Your task to perform on an android device: Show me productivity apps on the Play Store Image 0: 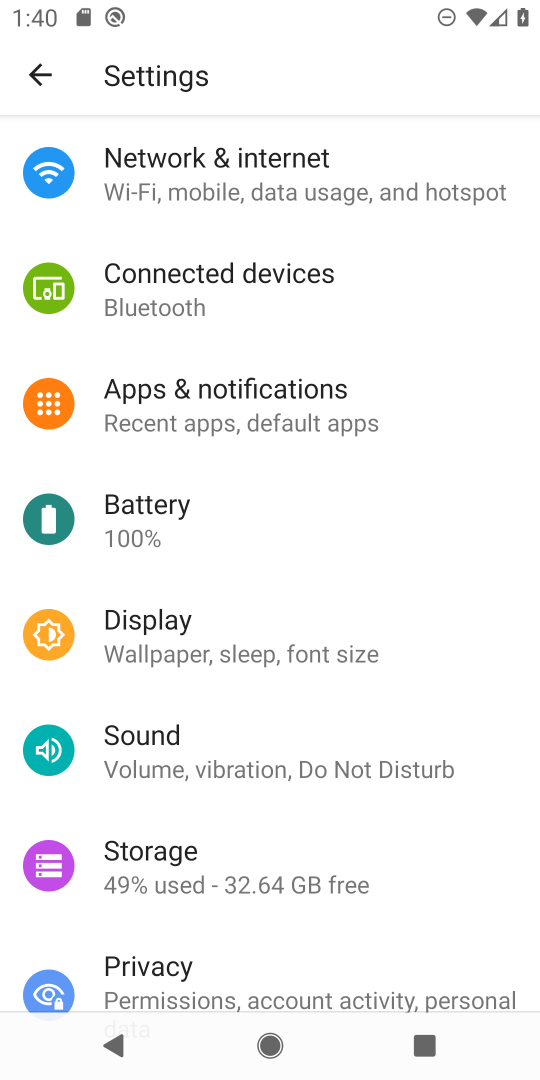
Step 0: task complete